Your task to perform on an android device: Open battery settings Image 0: 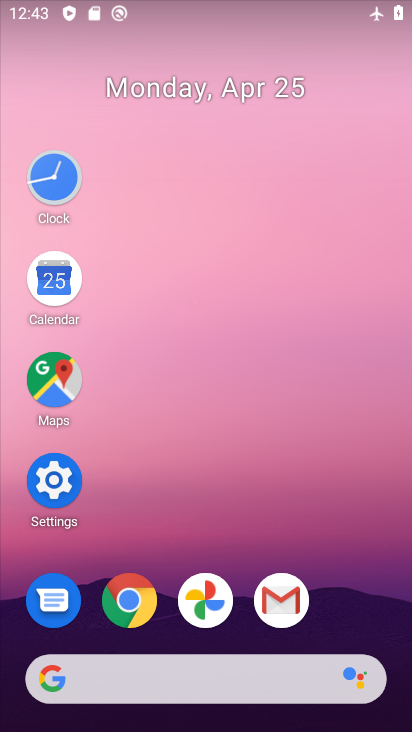
Step 0: click (53, 480)
Your task to perform on an android device: Open battery settings Image 1: 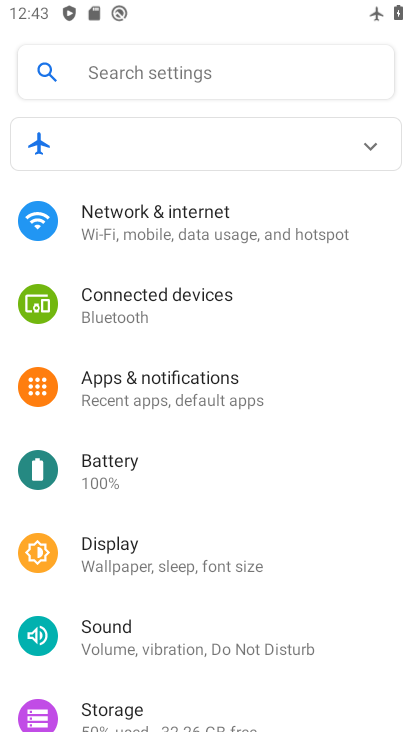
Step 1: click (94, 463)
Your task to perform on an android device: Open battery settings Image 2: 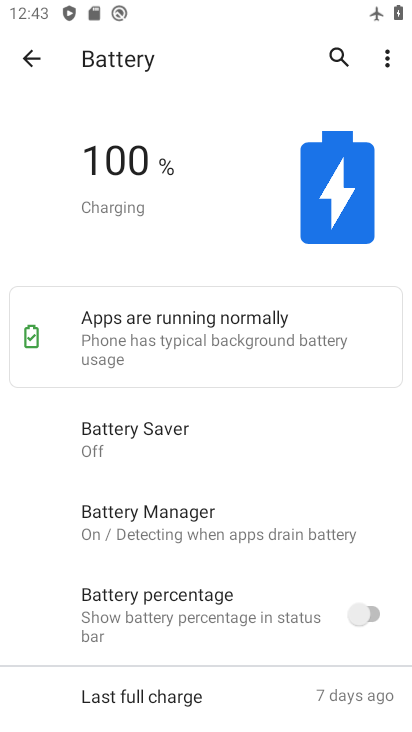
Step 2: task complete